Your task to perform on an android device: open a new tab in the chrome app Image 0: 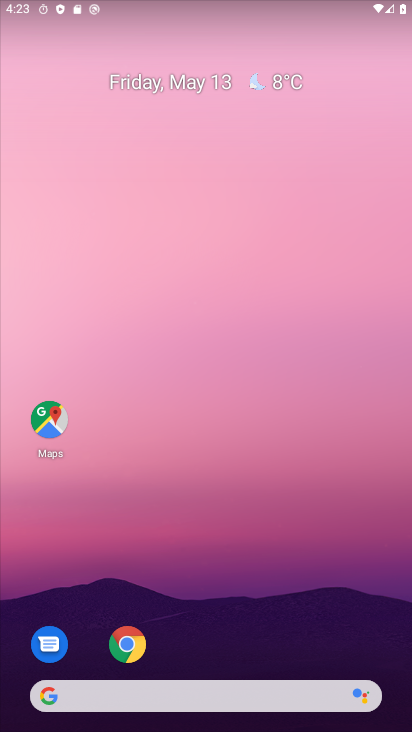
Step 0: click (132, 651)
Your task to perform on an android device: open a new tab in the chrome app Image 1: 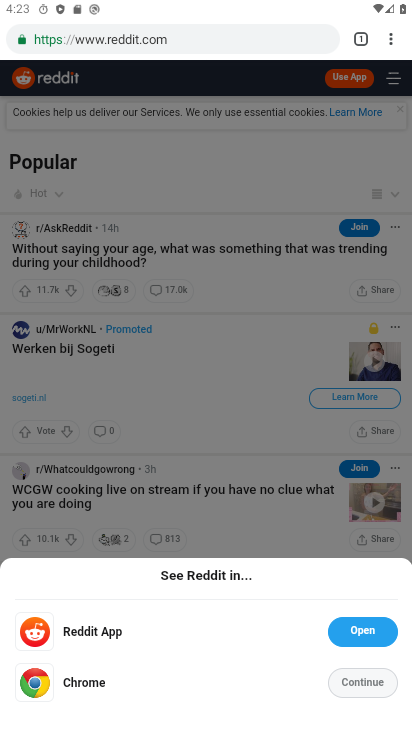
Step 1: click (358, 38)
Your task to perform on an android device: open a new tab in the chrome app Image 2: 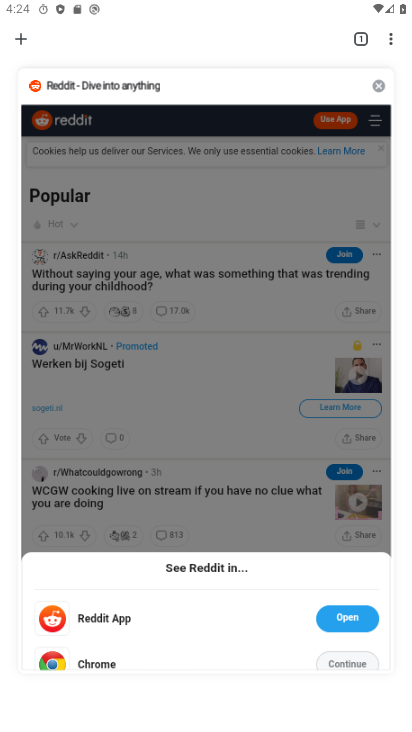
Step 2: click (21, 37)
Your task to perform on an android device: open a new tab in the chrome app Image 3: 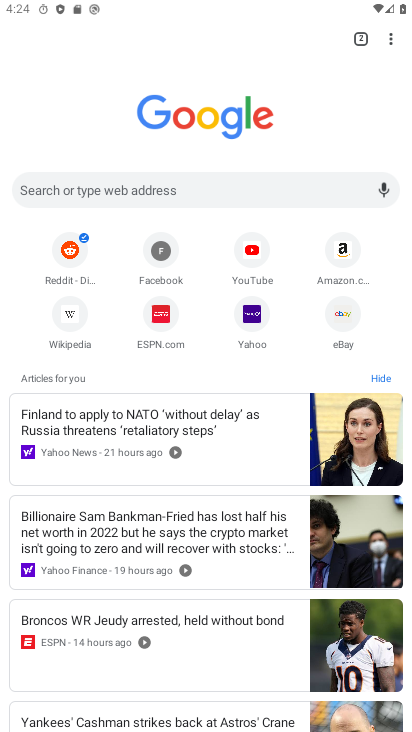
Step 3: task complete